Your task to perform on an android device: Search for a new mascara Image 0: 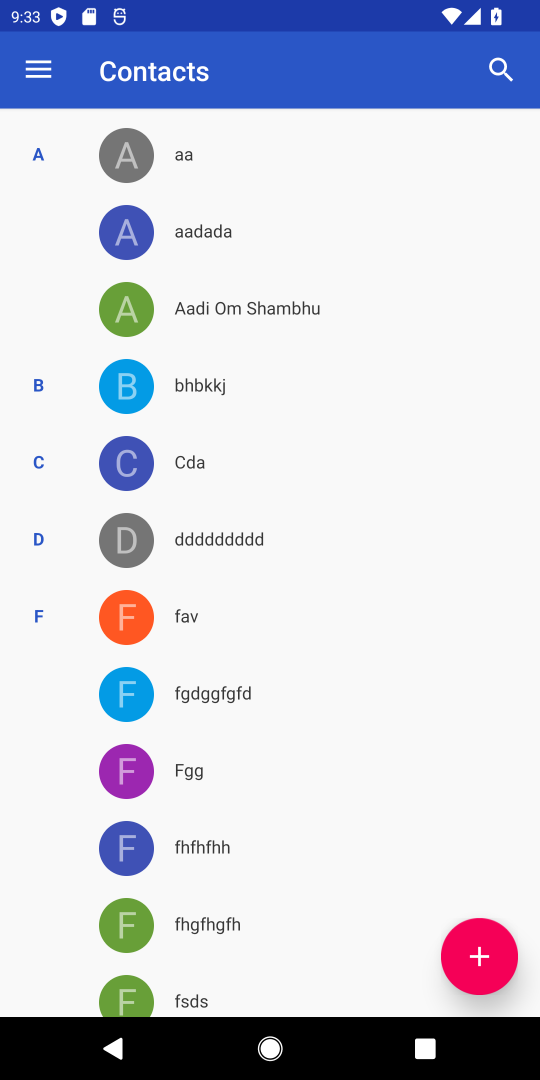
Step 0: press home button
Your task to perform on an android device: Search for a new mascara Image 1: 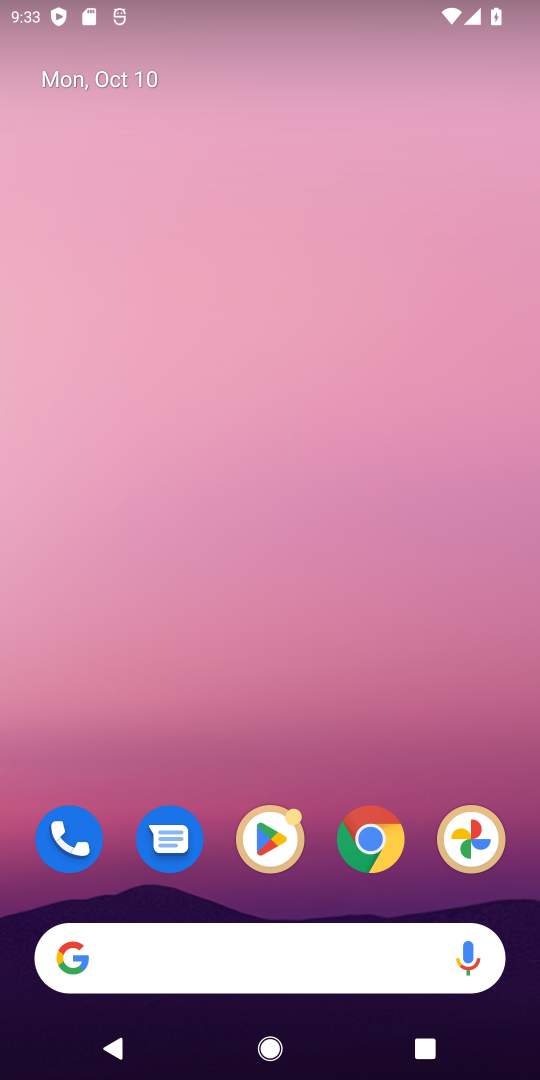
Step 1: click (373, 845)
Your task to perform on an android device: Search for a new mascara Image 2: 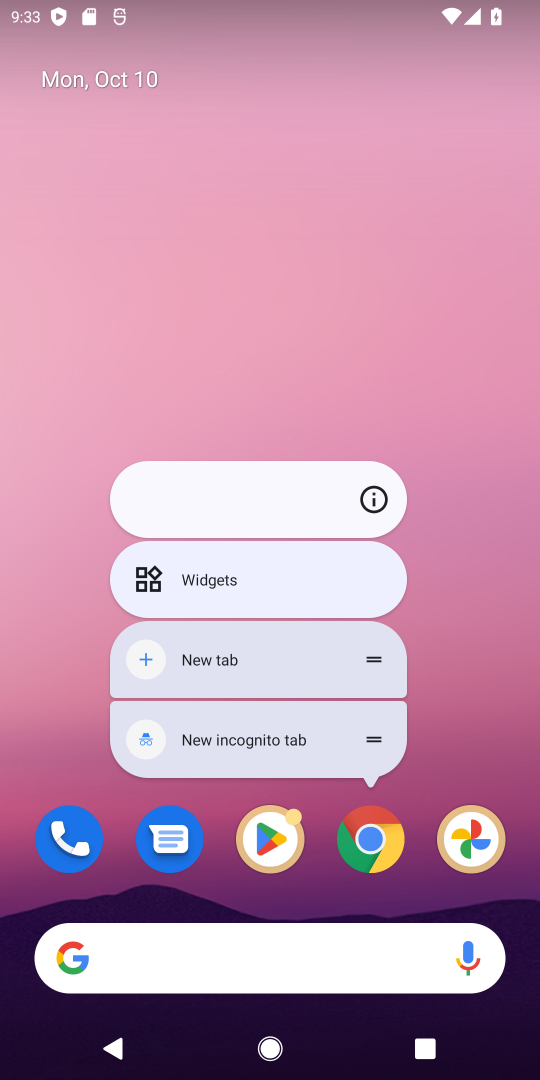
Step 2: click (378, 828)
Your task to perform on an android device: Search for a new mascara Image 3: 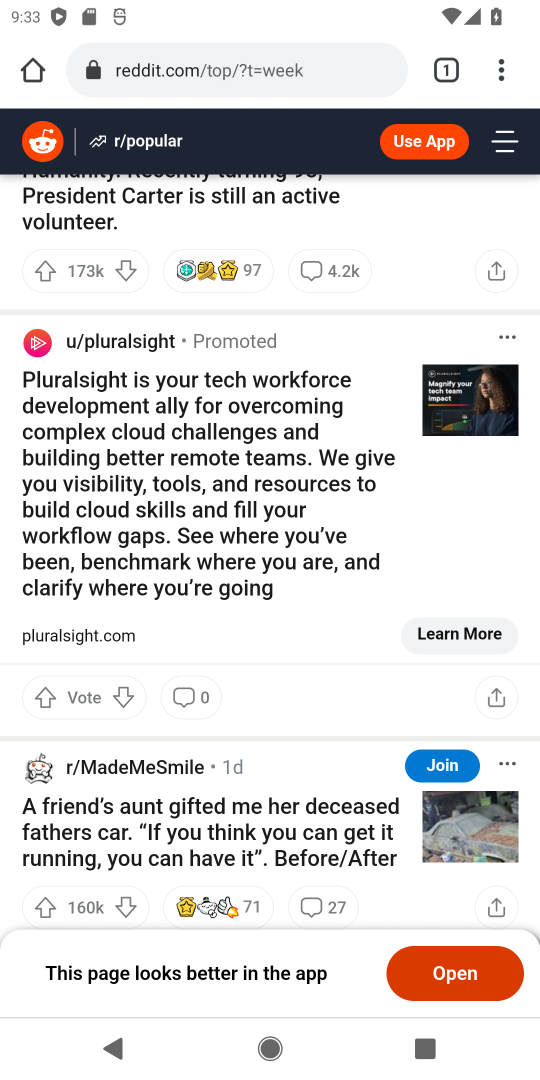
Step 3: click (300, 70)
Your task to perform on an android device: Search for a new mascara Image 4: 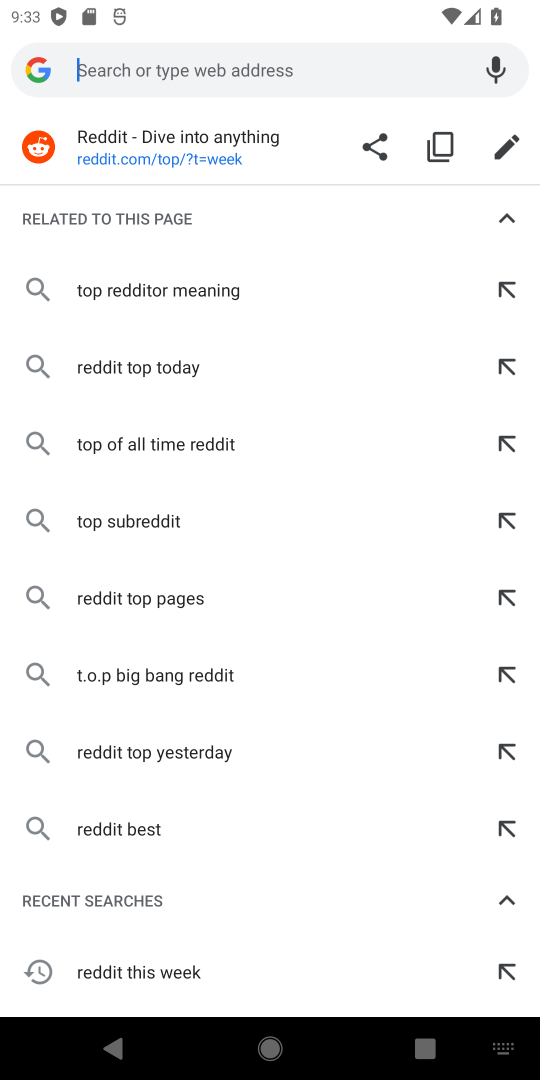
Step 4: type "new mascara"
Your task to perform on an android device: Search for a new mascara Image 5: 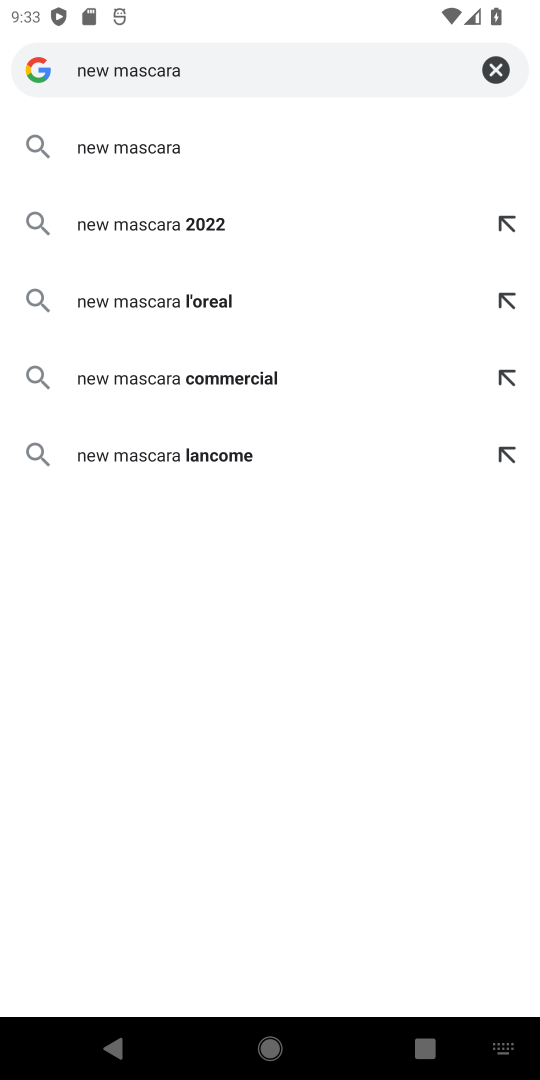
Step 5: press enter
Your task to perform on an android device: Search for a new mascara Image 6: 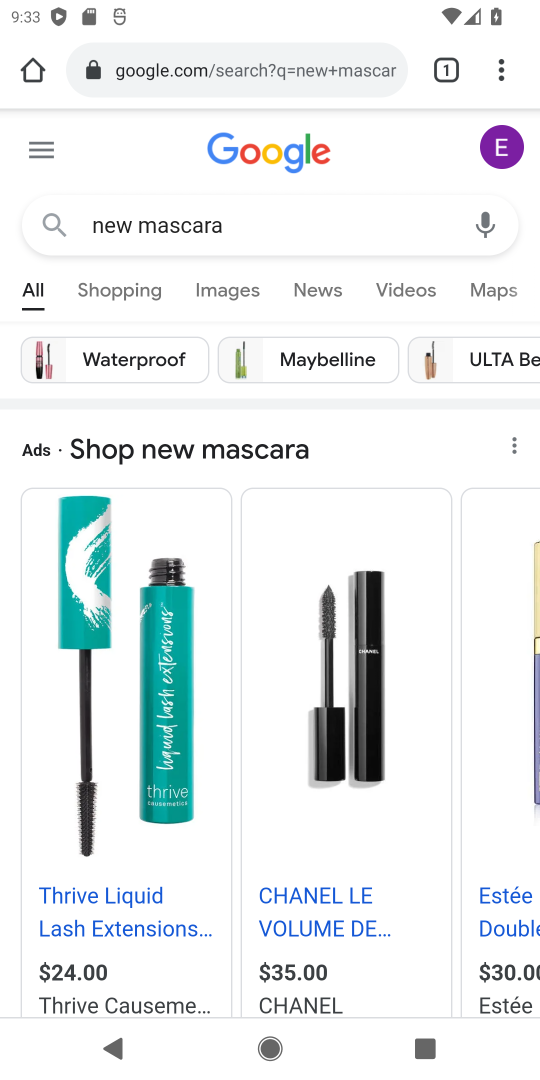
Step 6: task complete